Your task to perform on an android device: Open calendar and show me the fourth week of next month Image 0: 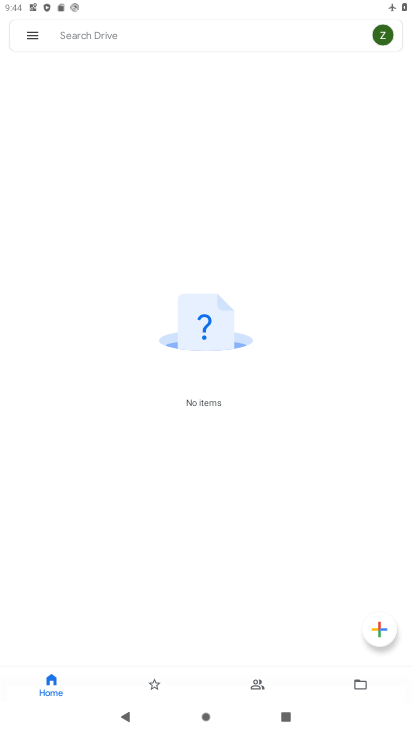
Step 0: press home button
Your task to perform on an android device: Open calendar and show me the fourth week of next month Image 1: 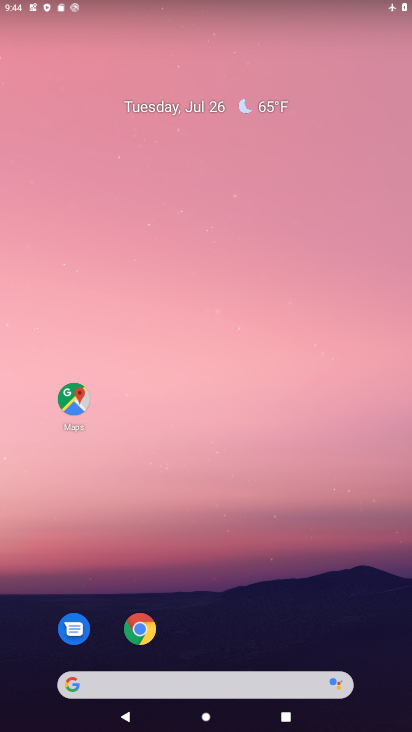
Step 1: drag from (240, 560) to (167, 9)
Your task to perform on an android device: Open calendar and show me the fourth week of next month Image 2: 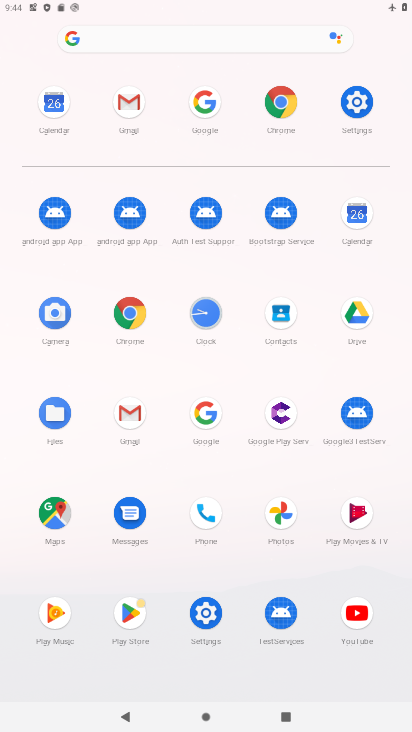
Step 2: click (355, 216)
Your task to perform on an android device: Open calendar and show me the fourth week of next month Image 3: 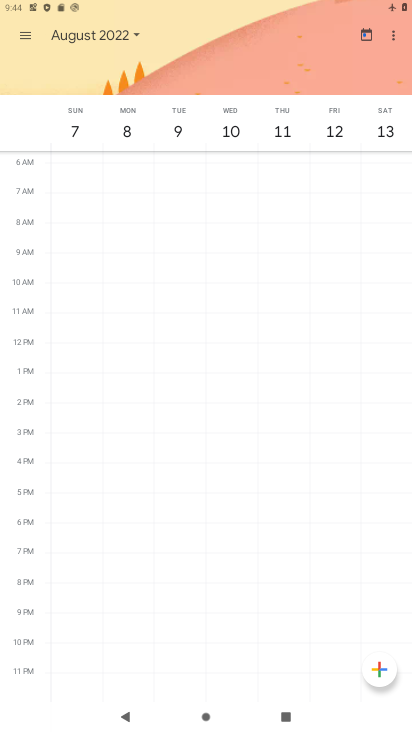
Step 3: click (83, 40)
Your task to perform on an android device: Open calendar and show me the fourth week of next month Image 4: 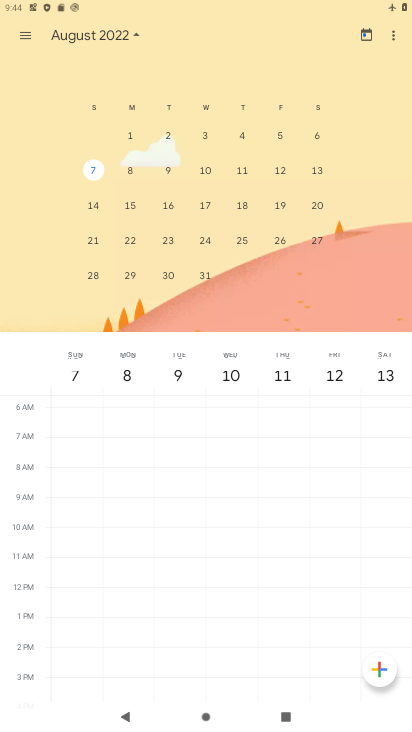
Step 4: click (164, 247)
Your task to perform on an android device: Open calendar and show me the fourth week of next month Image 5: 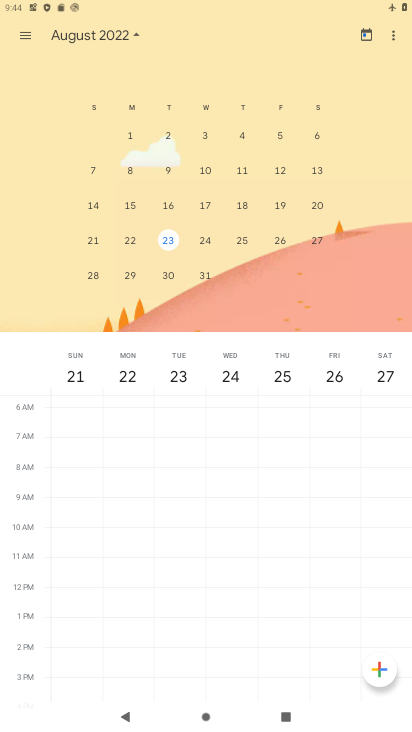
Step 5: task complete